Your task to perform on an android device: Go to ESPN.com Image 0: 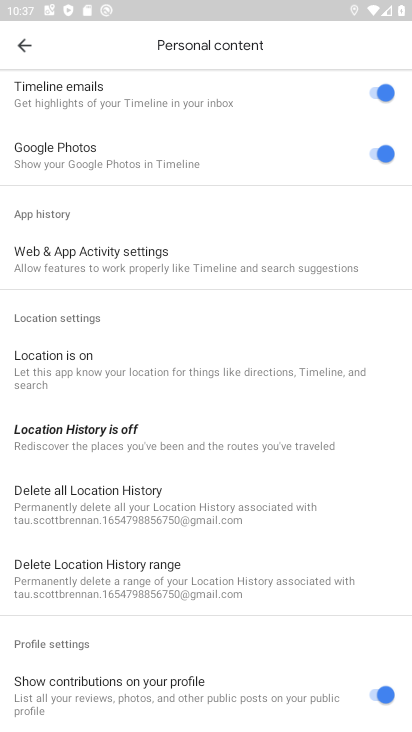
Step 0: press home button
Your task to perform on an android device: Go to ESPN.com Image 1: 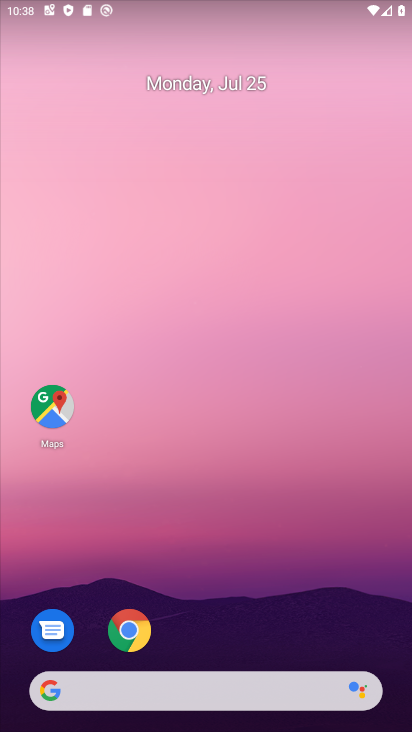
Step 1: drag from (350, 629) to (315, 140)
Your task to perform on an android device: Go to ESPN.com Image 2: 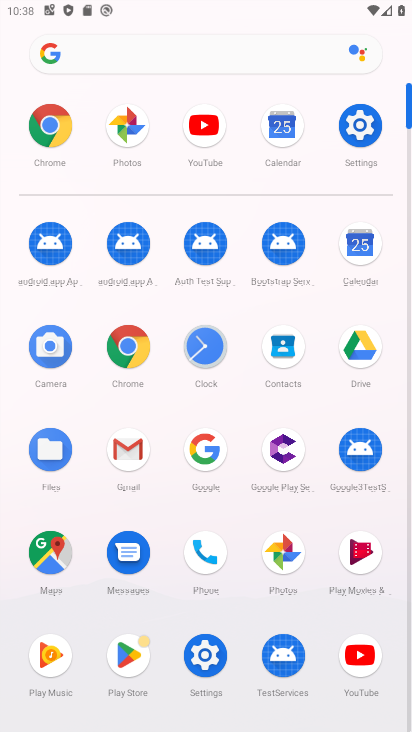
Step 2: click (141, 345)
Your task to perform on an android device: Go to ESPN.com Image 3: 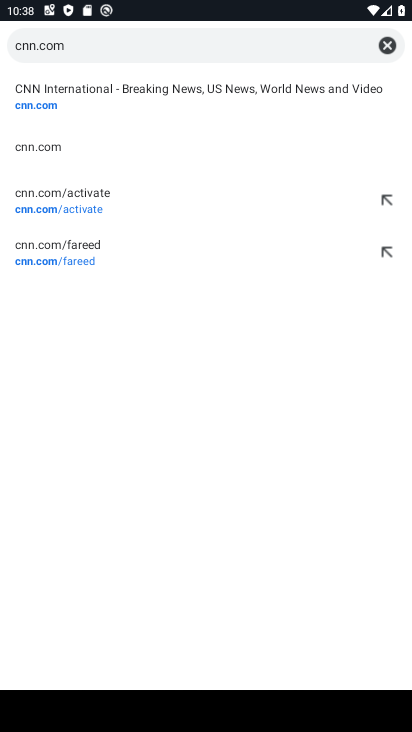
Step 3: click (386, 46)
Your task to perform on an android device: Go to ESPN.com Image 4: 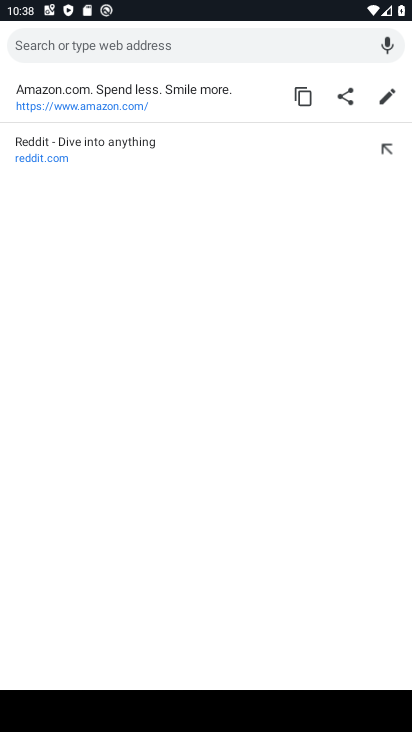
Step 4: type "espn.com"
Your task to perform on an android device: Go to ESPN.com Image 5: 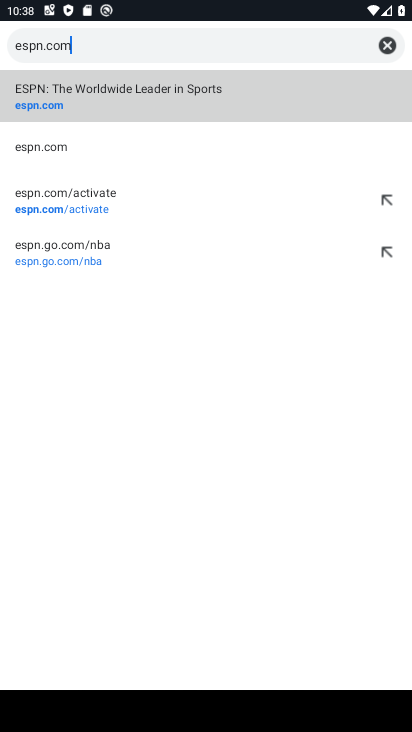
Step 5: click (294, 102)
Your task to perform on an android device: Go to ESPN.com Image 6: 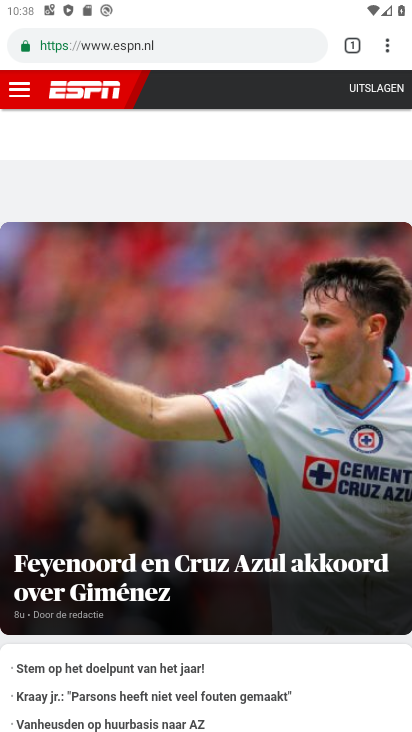
Step 6: type ""
Your task to perform on an android device: Go to ESPN.com Image 7: 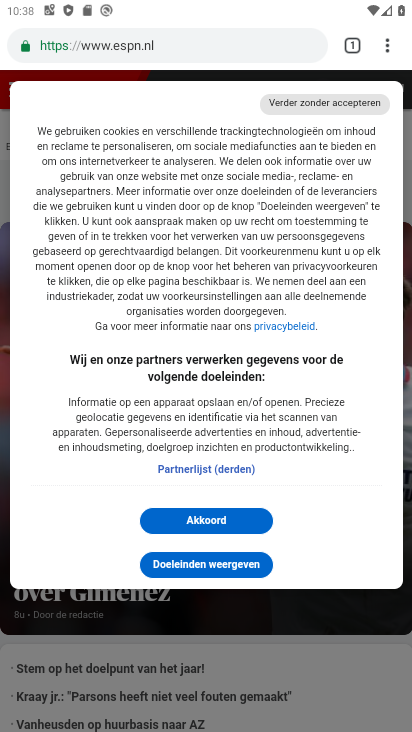
Step 7: task complete